Your task to perform on an android device: turn on javascript in the chrome app Image 0: 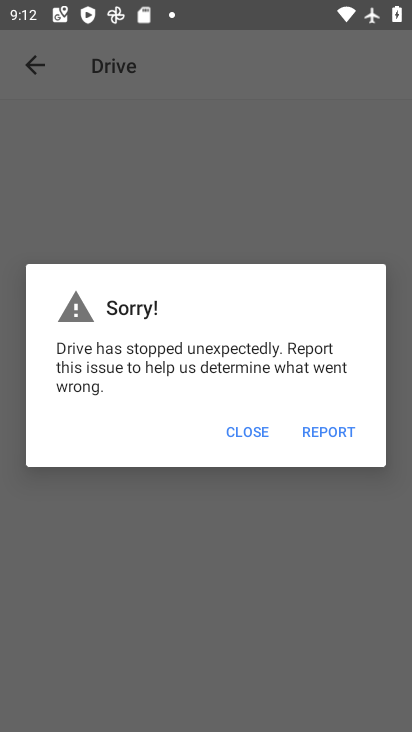
Step 0: press back button
Your task to perform on an android device: turn on javascript in the chrome app Image 1: 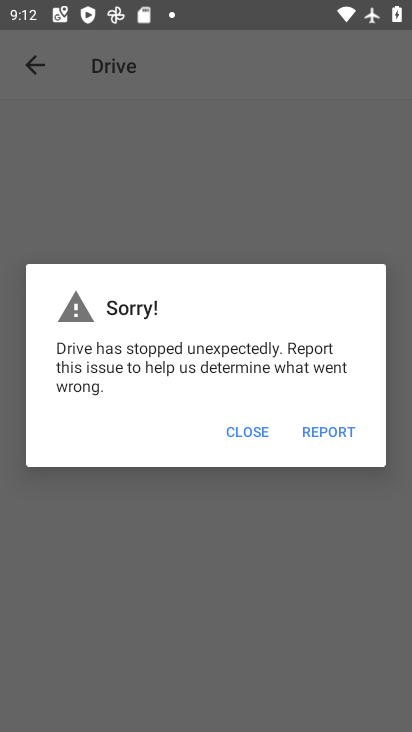
Step 1: press home button
Your task to perform on an android device: turn on javascript in the chrome app Image 2: 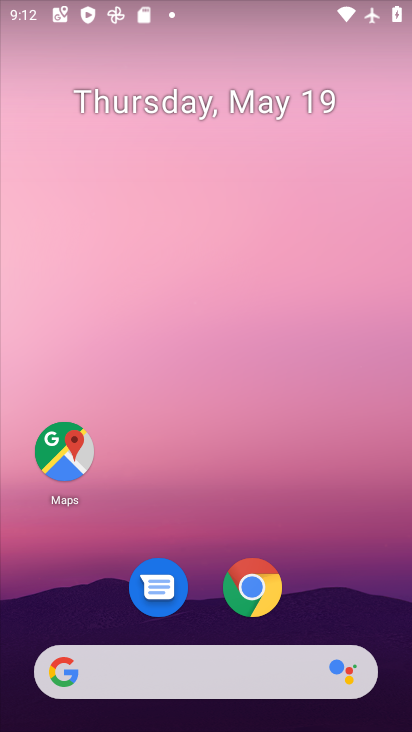
Step 2: drag from (354, 598) to (298, 75)
Your task to perform on an android device: turn on javascript in the chrome app Image 3: 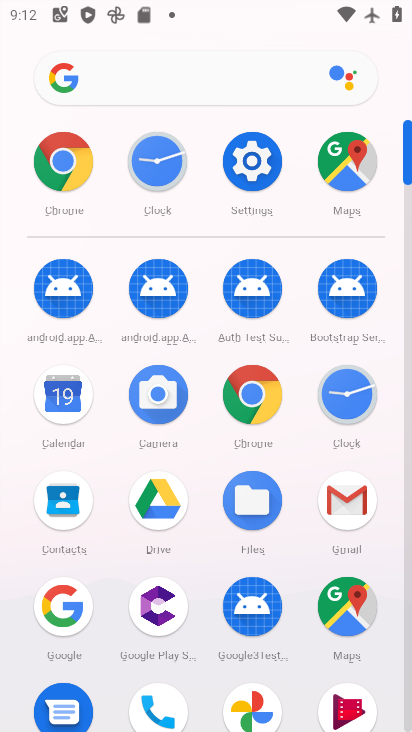
Step 3: drag from (12, 572) to (3, 216)
Your task to perform on an android device: turn on javascript in the chrome app Image 4: 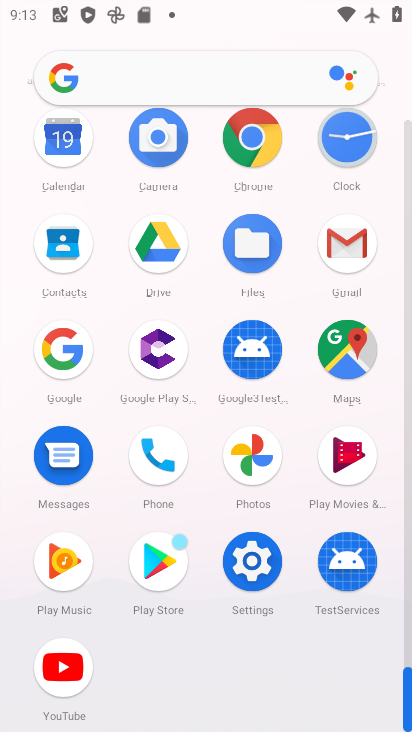
Step 4: click (246, 134)
Your task to perform on an android device: turn on javascript in the chrome app Image 5: 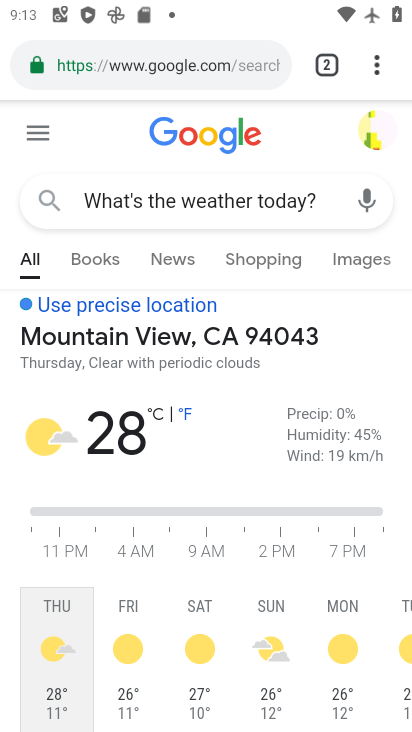
Step 5: drag from (374, 70) to (178, 629)
Your task to perform on an android device: turn on javascript in the chrome app Image 6: 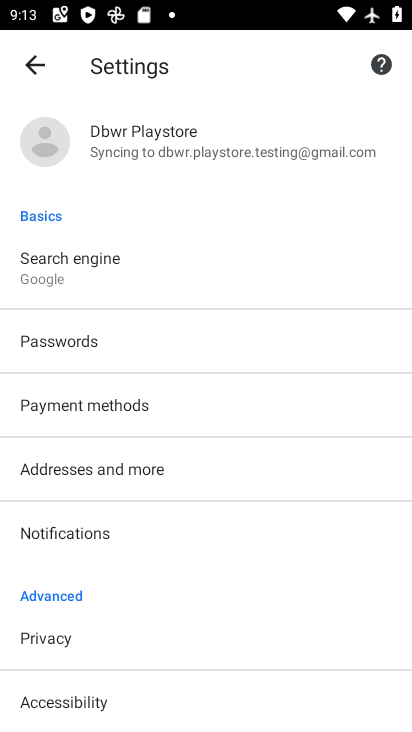
Step 6: drag from (220, 589) to (233, 187)
Your task to perform on an android device: turn on javascript in the chrome app Image 7: 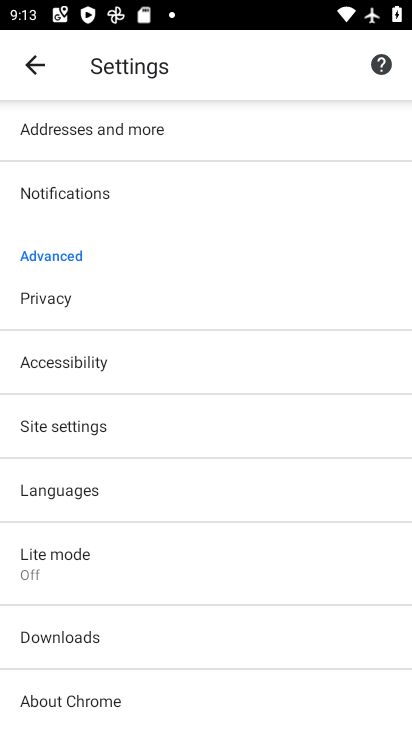
Step 7: click (97, 429)
Your task to perform on an android device: turn on javascript in the chrome app Image 8: 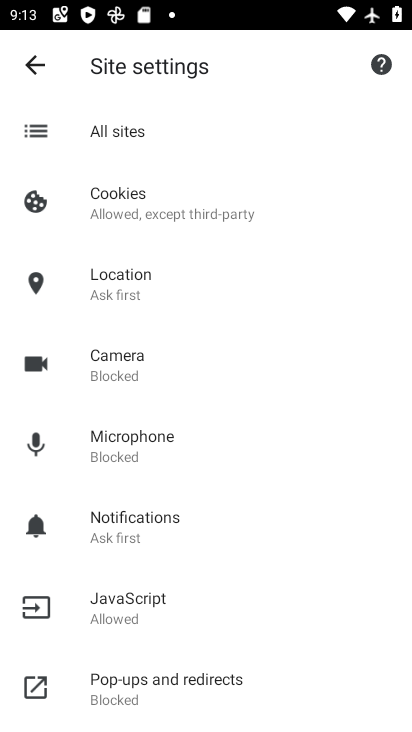
Step 8: click (129, 598)
Your task to perform on an android device: turn on javascript in the chrome app Image 9: 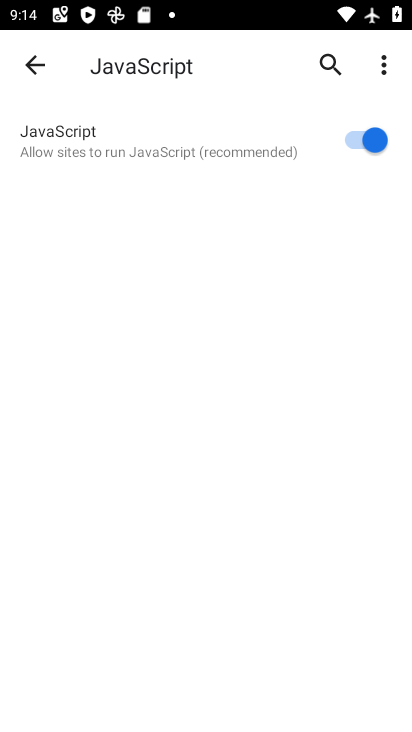
Step 9: task complete